Your task to perform on an android device: turn off wifi Image 0: 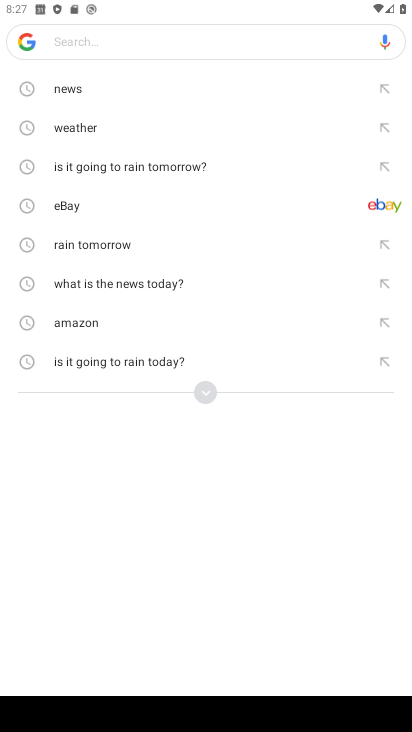
Step 0: press home button
Your task to perform on an android device: turn off wifi Image 1: 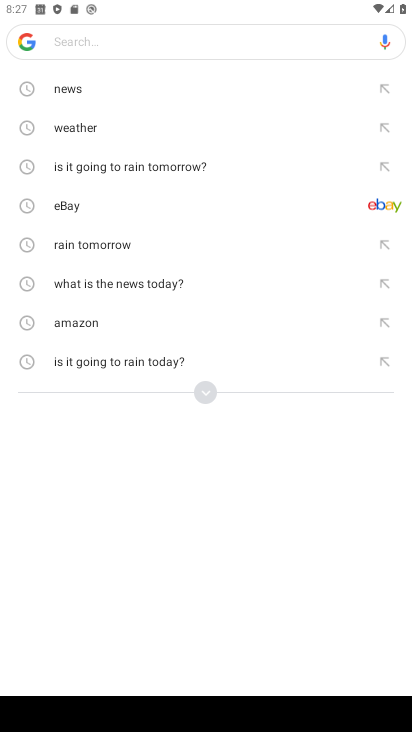
Step 1: press home button
Your task to perform on an android device: turn off wifi Image 2: 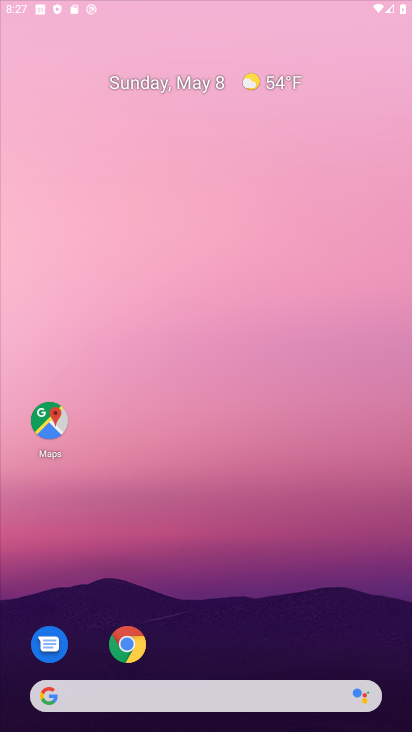
Step 2: press home button
Your task to perform on an android device: turn off wifi Image 3: 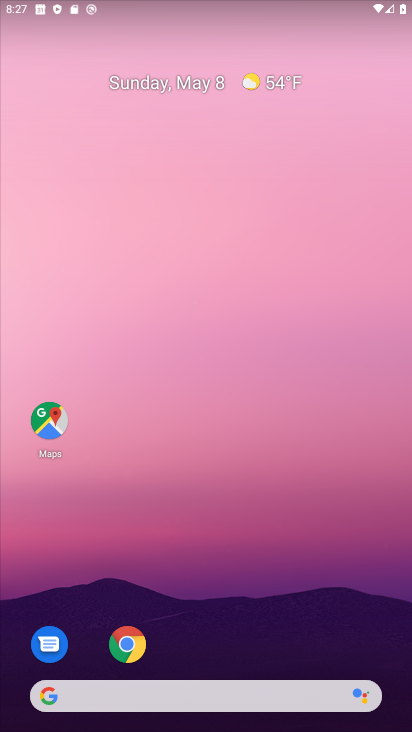
Step 3: drag from (176, 635) to (180, 14)
Your task to perform on an android device: turn off wifi Image 4: 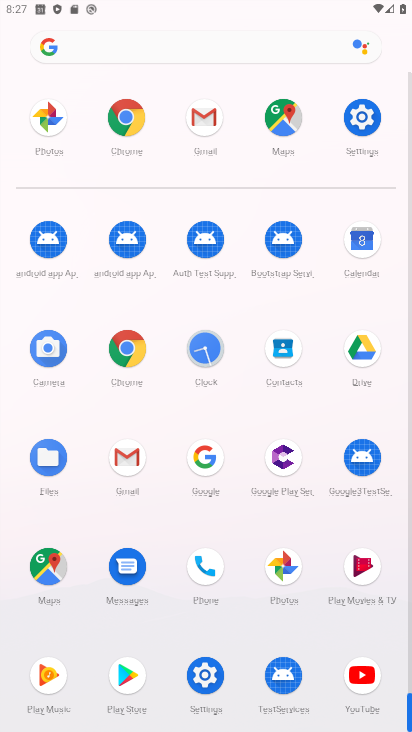
Step 4: click (362, 110)
Your task to perform on an android device: turn off wifi Image 5: 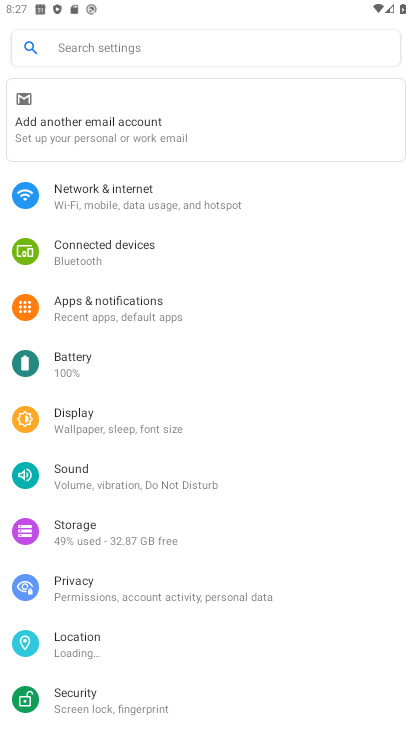
Step 5: click (104, 201)
Your task to perform on an android device: turn off wifi Image 6: 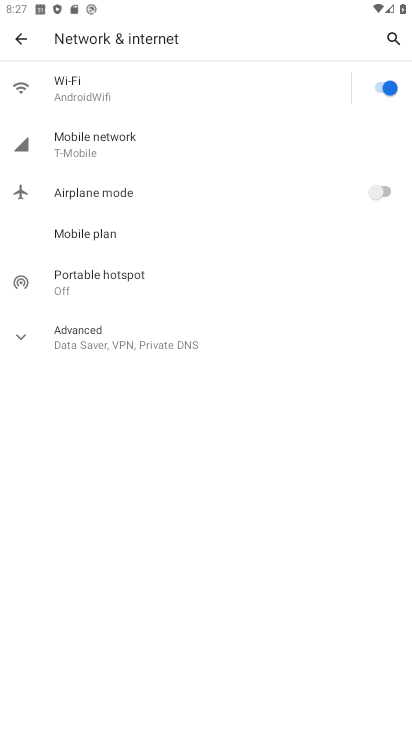
Step 6: click (163, 93)
Your task to perform on an android device: turn off wifi Image 7: 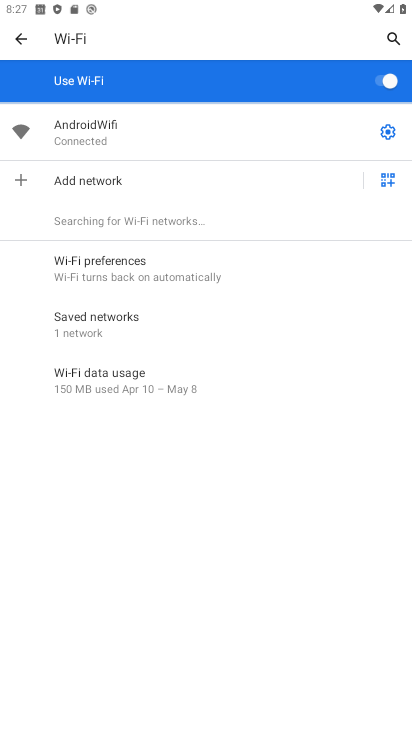
Step 7: click (380, 78)
Your task to perform on an android device: turn off wifi Image 8: 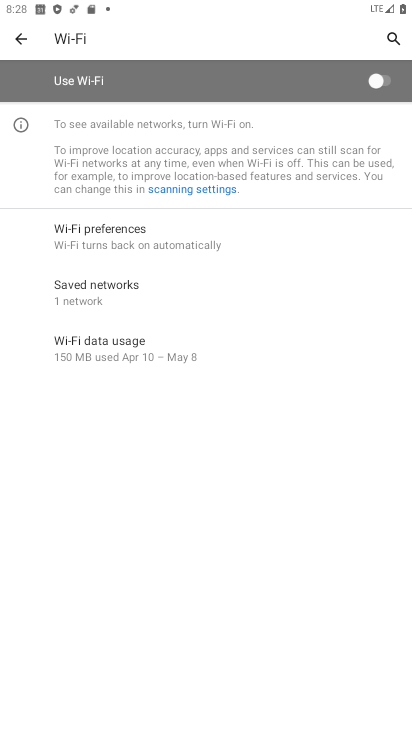
Step 8: task complete